Your task to perform on an android device: open device folders in google photos Image 0: 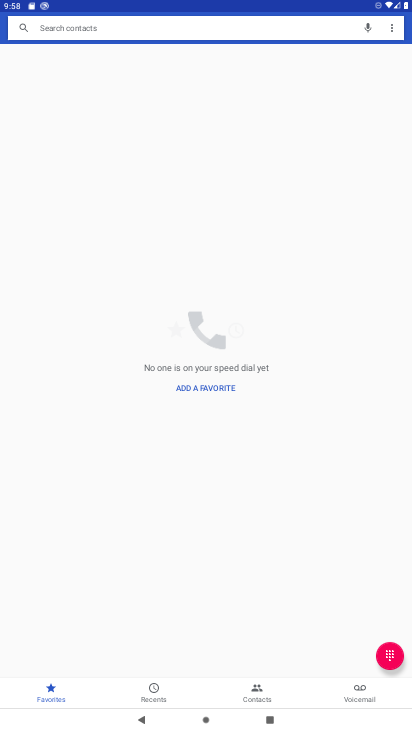
Step 0: press home button
Your task to perform on an android device: open device folders in google photos Image 1: 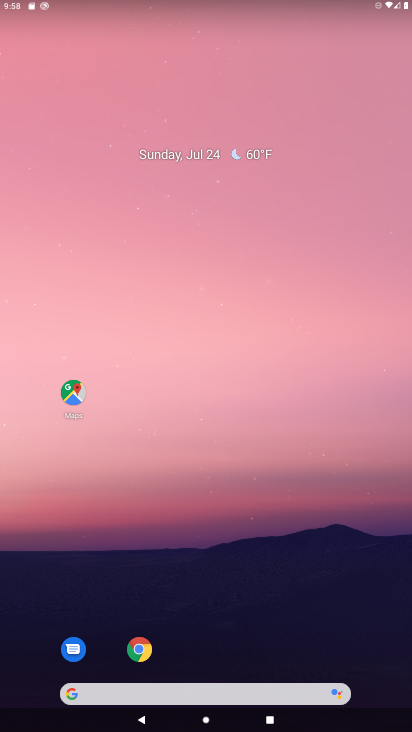
Step 1: drag from (298, 447) to (315, 229)
Your task to perform on an android device: open device folders in google photos Image 2: 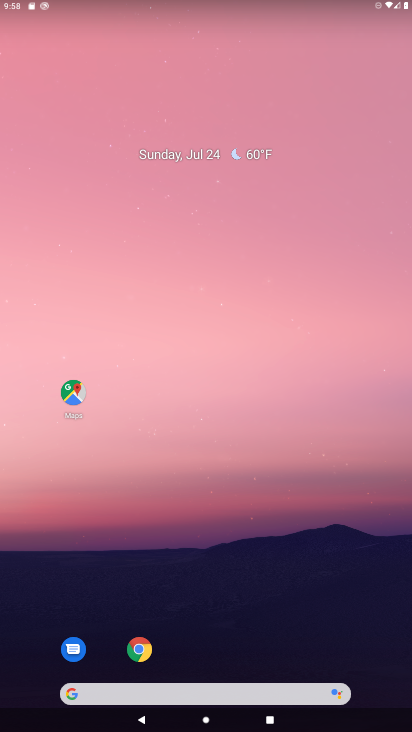
Step 2: drag from (323, 655) to (311, 195)
Your task to perform on an android device: open device folders in google photos Image 3: 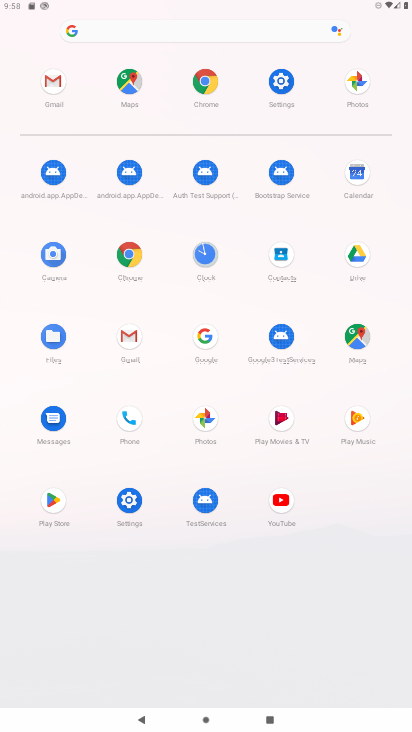
Step 3: click (207, 418)
Your task to perform on an android device: open device folders in google photos Image 4: 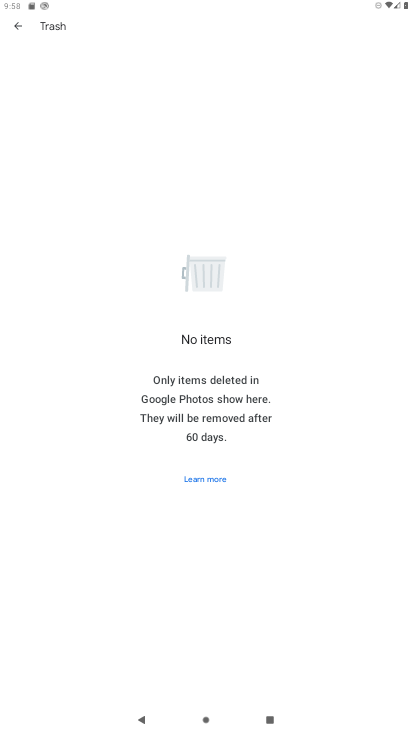
Step 4: click (20, 31)
Your task to perform on an android device: open device folders in google photos Image 5: 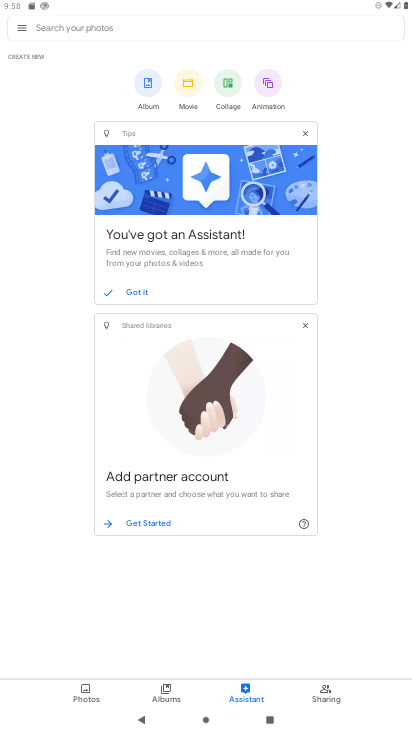
Step 5: click (20, 29)
Your task to perform on an android device: open device folders in google photos Image 6: 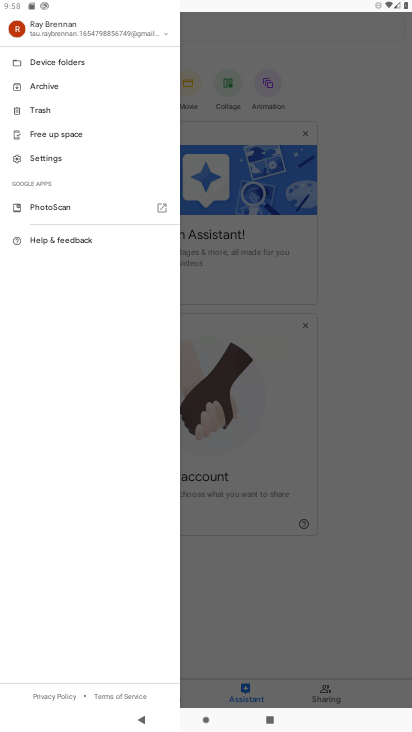
Step 6: click (67, 62)
Your task to perform on an android device: open device folders in google photos Image 7: 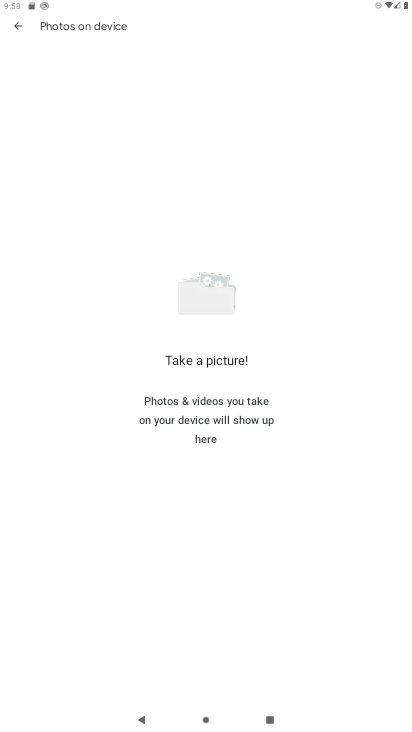
Step 7: task complete